Your task to perform on an android device: open a bookmark in the chrome app Image 0: 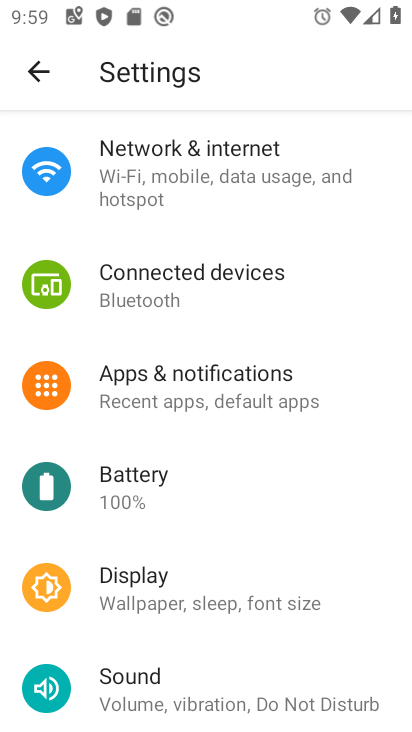
Step 0: press home button
Your task to perform on an android device: open a bookmark in the chrome app Image 1: 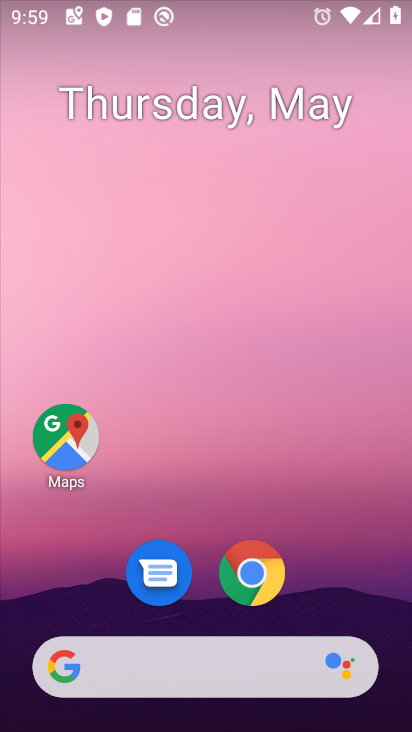
Step 1: click (264, 566)
Your task to perform on an android device: open a bookmark in the chrome app Image 2: 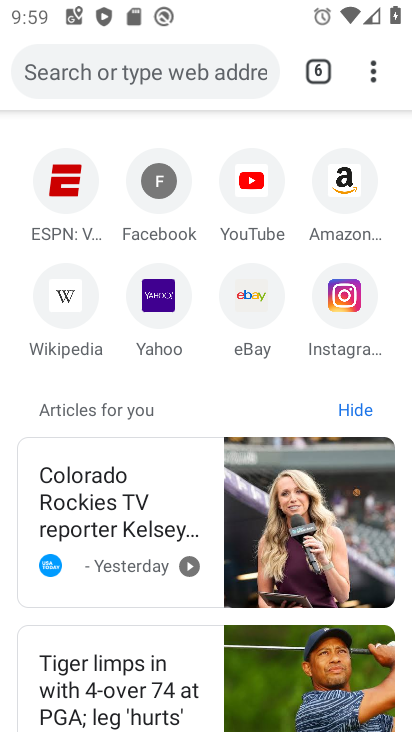
Step 2: task complete